Your task to perform on an android device: Go to battery settings Image 0: 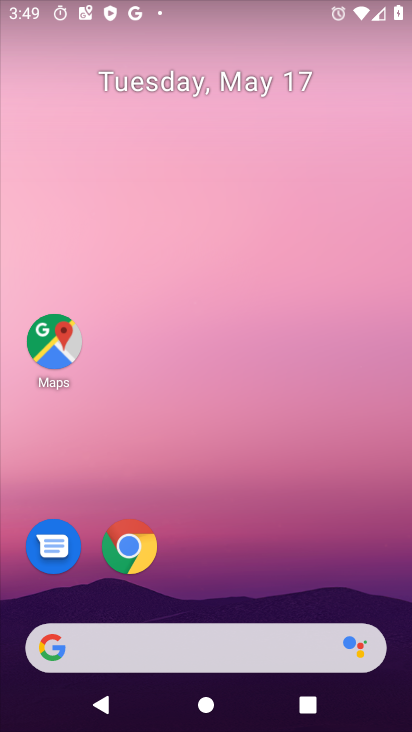
Step 0: click (376, 338)
Your task to perform on an android device: Go to battery settings Image 1: 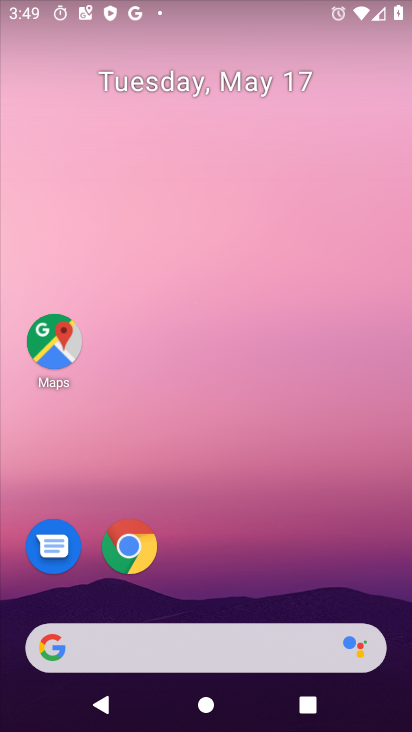
Step 1: drag from (383, 537) to (360, 380)
Your task to perform on an android device: Go to battery settings Image 2: 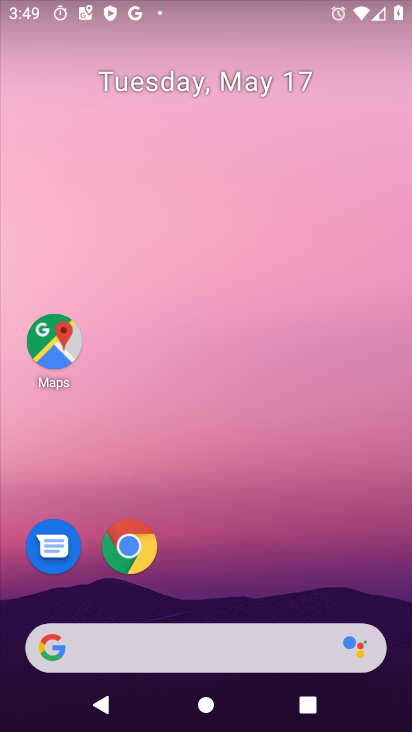
Step 2: drag from (398, 567) to (360, 202)
Your task to perform on an android device: Go to battery settings Image 3: 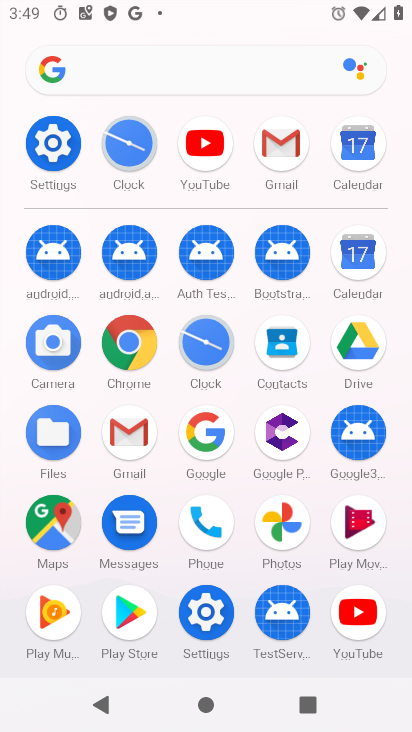
Step 3: click (65, 142)
Your task to perform on an android device: Go to battery settings Image 4: 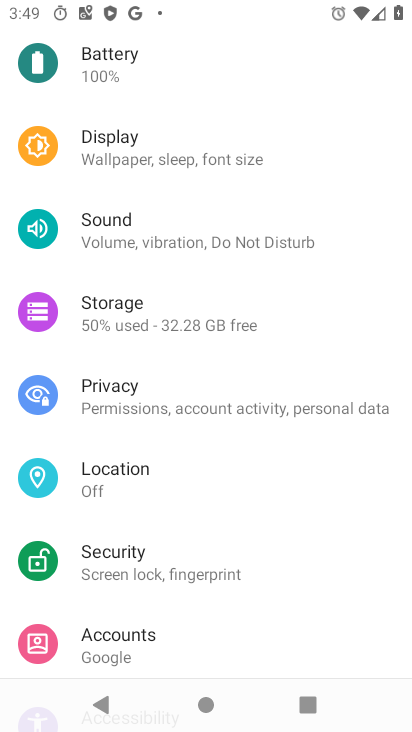
Step 4: click (102, 59)
Your task to perform on an android device: Go to battery settings Image 5: 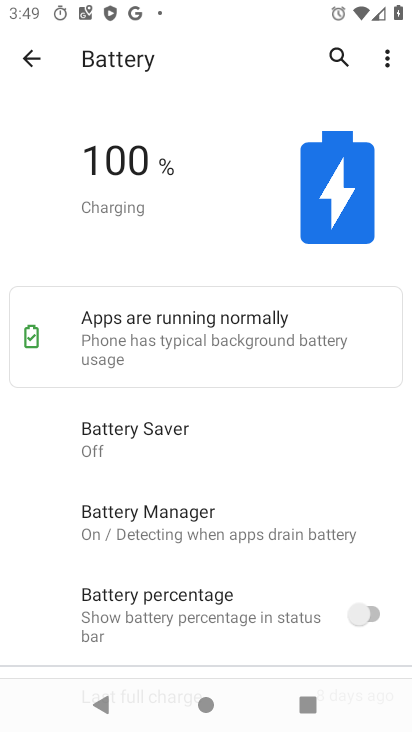
Step 5: task complete